Your task to perform on an android device: turn off notifications settings in the gmail app Image 0: 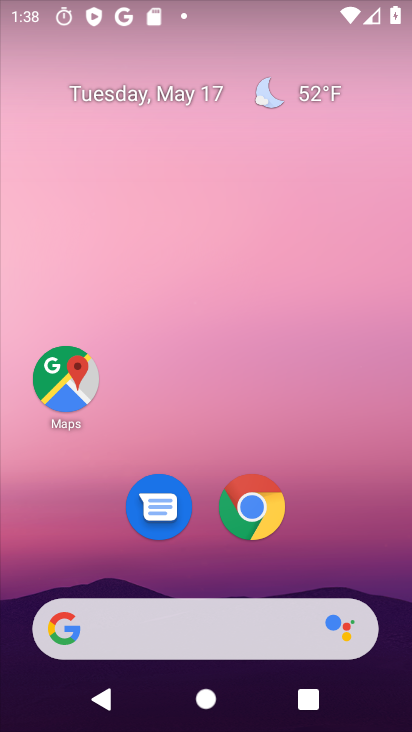
Step 0: drag from (198, 553) to (239, 102)
Your task to perform on an android device: turn off notifications settings in the gmail app Image 1: 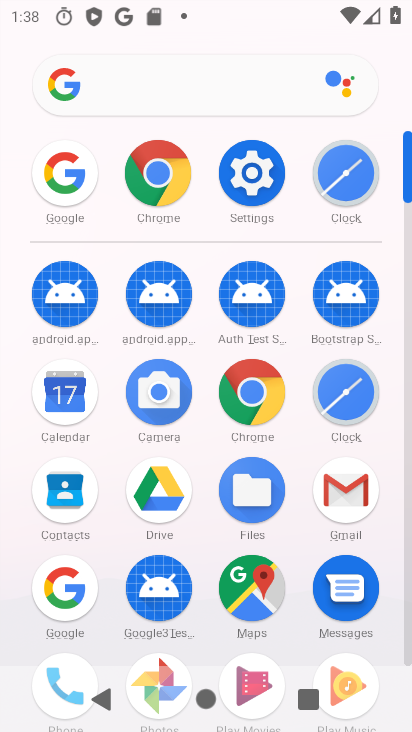
Step 1: click (346, 501)
Your task to perform on an android device: turn off notifications settings in the gmail app Image 2: 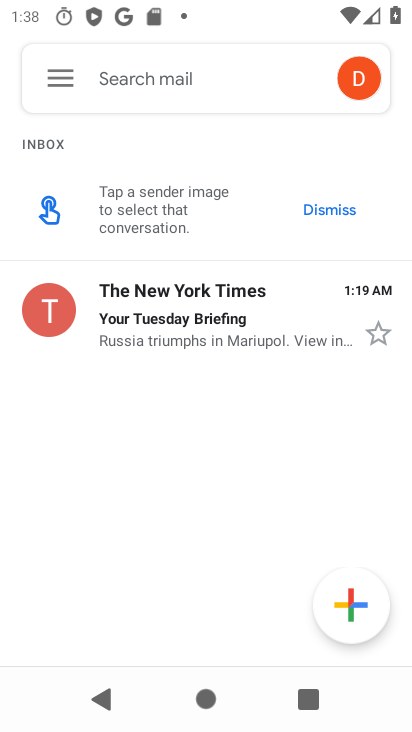
Step 2: click (65, 79)
Your task to perform on an android device: turn off notifications settings in the gmail app Image 3: 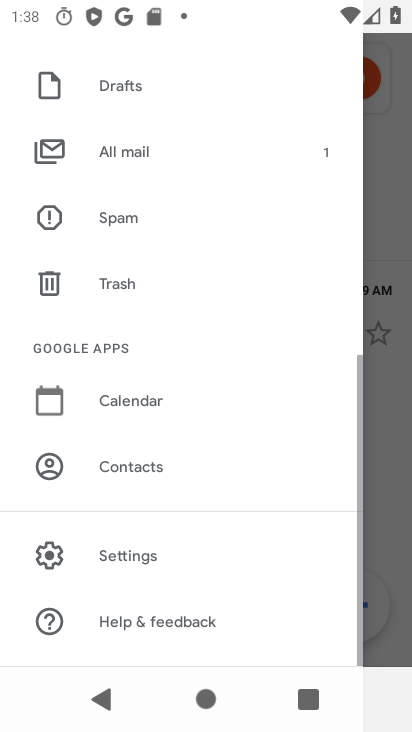
Step 3: drag from (166, 585) to (172, 438)
Your task to perform on an android device: turn off notifications settings in the gmail app Image 4: 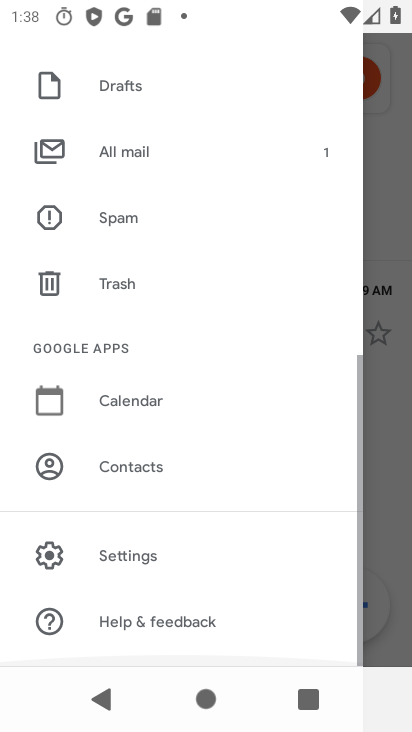
Step 4: click (179, 556)
Your task to perform on an android device: turn off notifications settings in the gmail app Image 5: 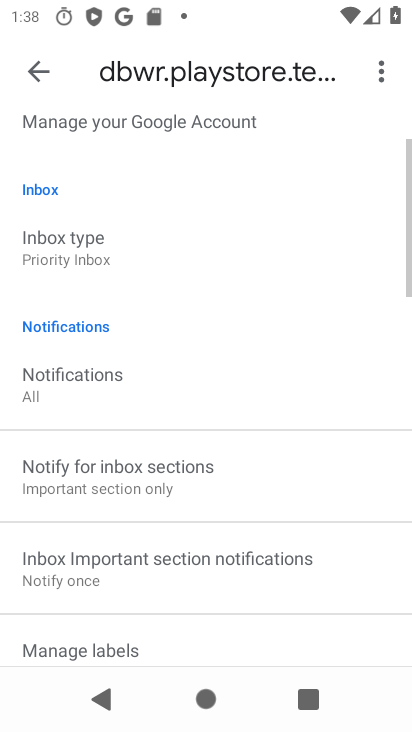
Step 5: click (86, 389)
Your task to perform on an android device: turn off notifications settings in the gmail app Image 6: 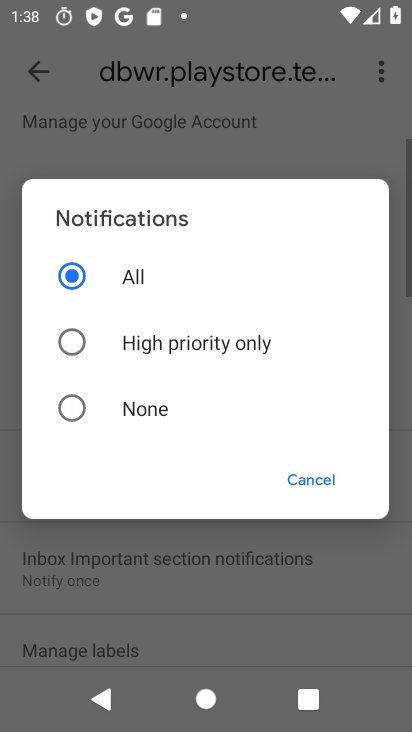
Step 6: click (71, 410)
Your task to perform on an android device: turn off notifications settings in the gmail app Image 7: 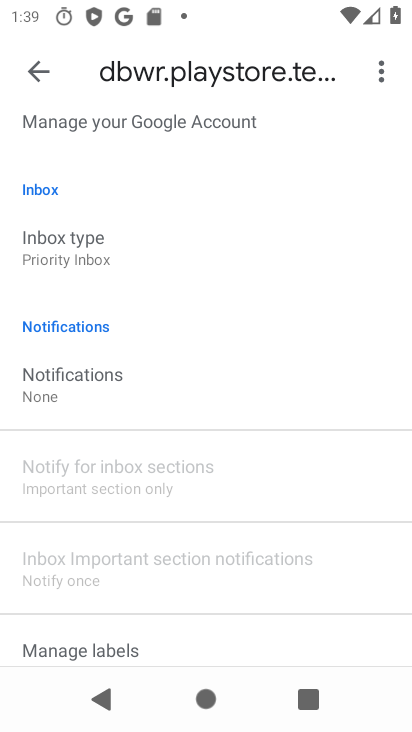
Step 7: task complete